Your task to perform on an android device: install app "Booking.com: Hotels and more" Image 0: 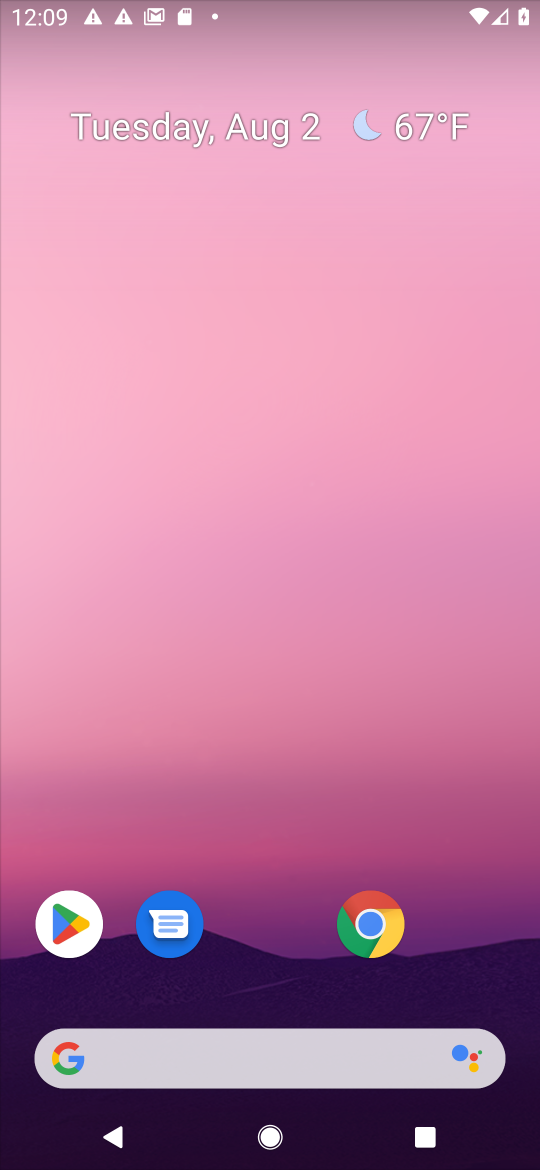
Step 0: press home button
Your task to perform on an android device: install app "Booking.com: Hotels and more" Image 1: 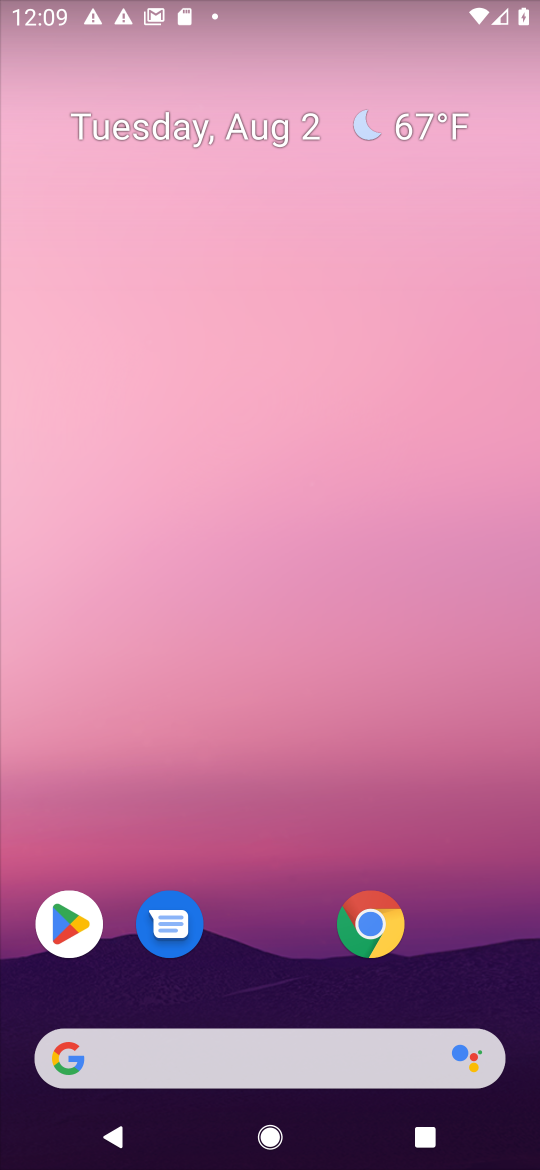
Step 1: press home button
Your task to perform on an android device: install app "Booking.com: Hotels and more" Image 2: 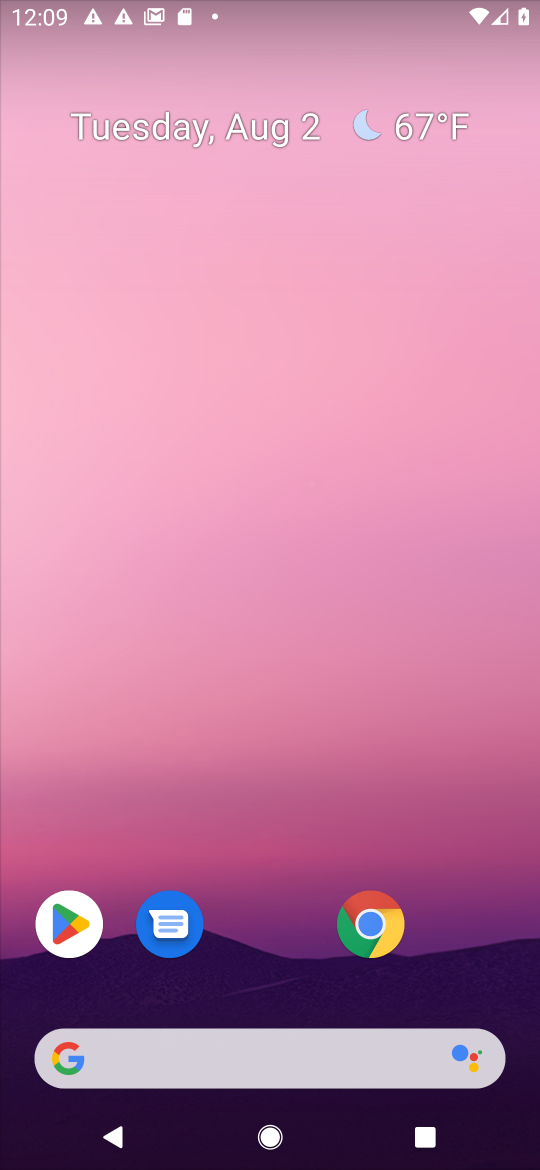
Step 2: click (74, 915)
Your task to perform on an android device: install app "Booking.com: Hotels and more" Image 3: 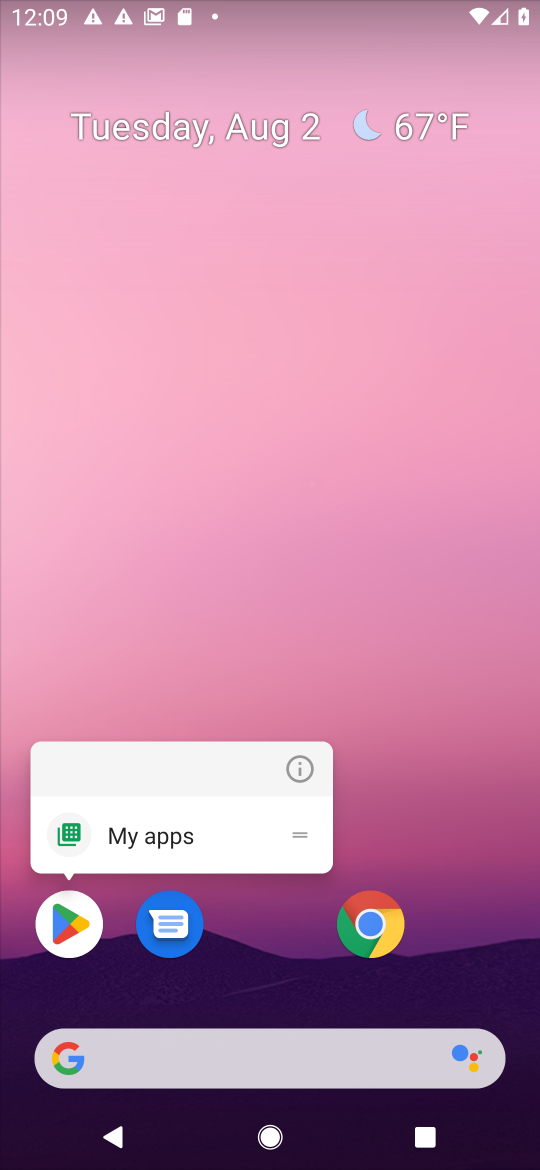
Step 3: click (63, 920)
Your task to perform on an android device: install app "Booking.com: Hotels and more" Image 4: 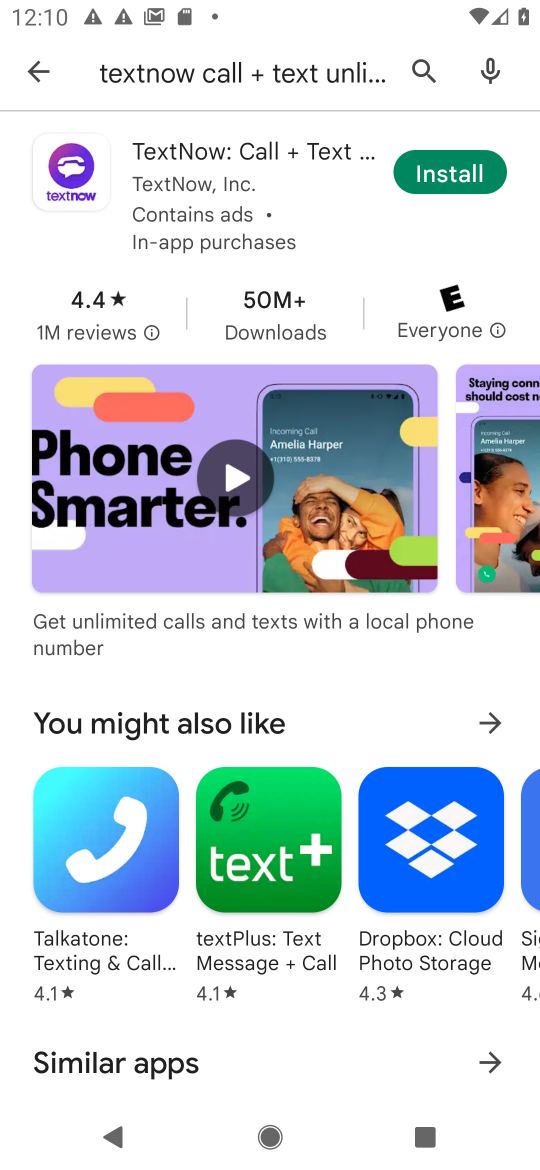
Step 4: click (421, 77)
Your task to perform on an android device: install app "Booking.com: Hotels and more" Image 5: 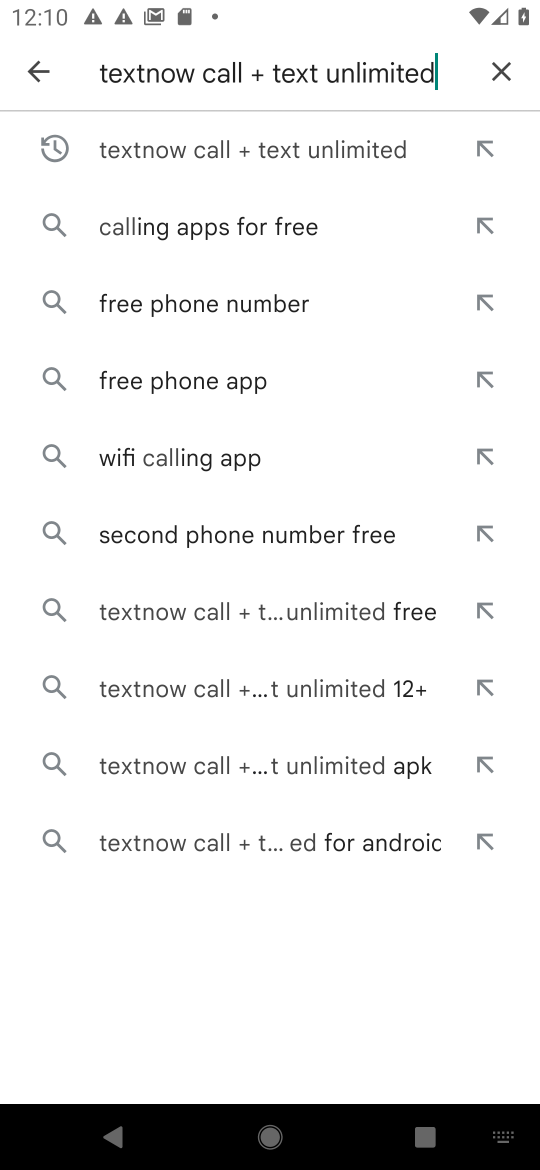
Step 5: click (492, 65)
Your task to perform on an android device: install app "Booking.com: Hotels and more" Image 6: 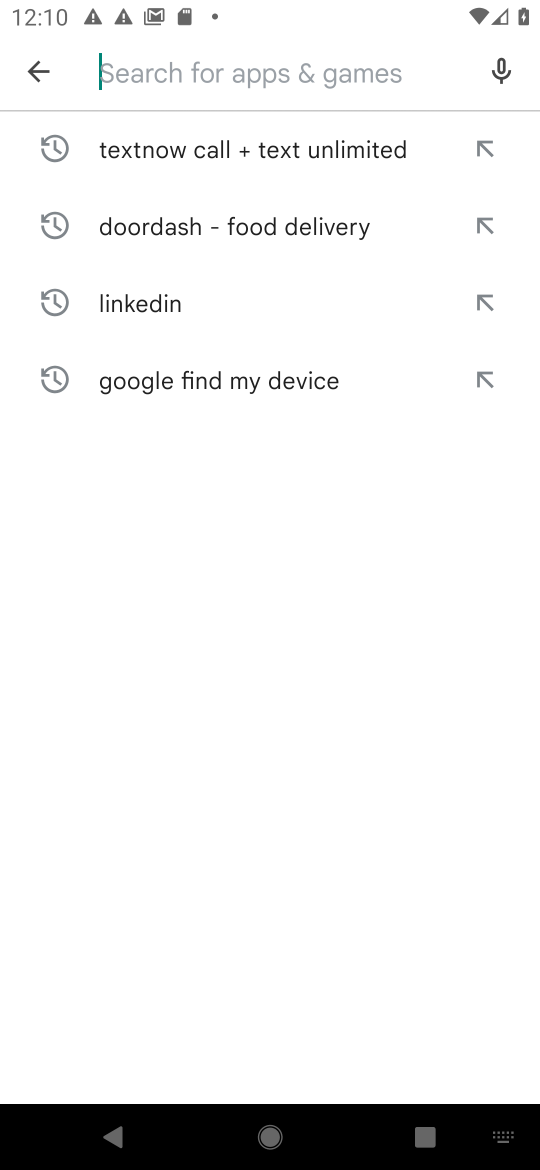
Step 6: type "Booking.com: Hotels and more"
Your task to perform on an android device: install app "Booking.com: Hotels and more" Image 7: 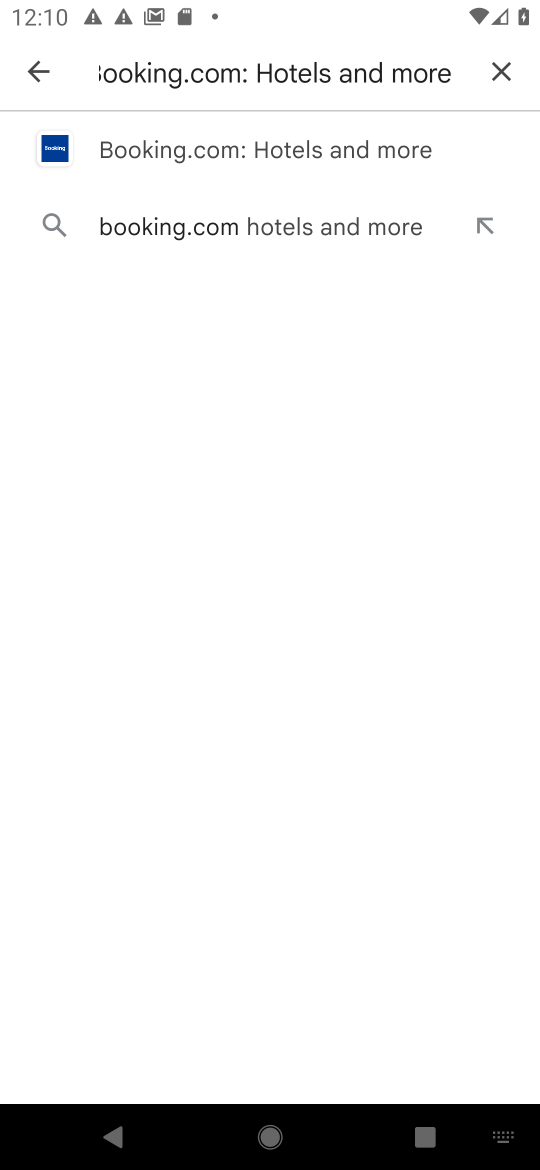
Step 7: click (296, 137)
Your task to perform on an android device: install app "Booking.com: Hotels and more" Image 8: 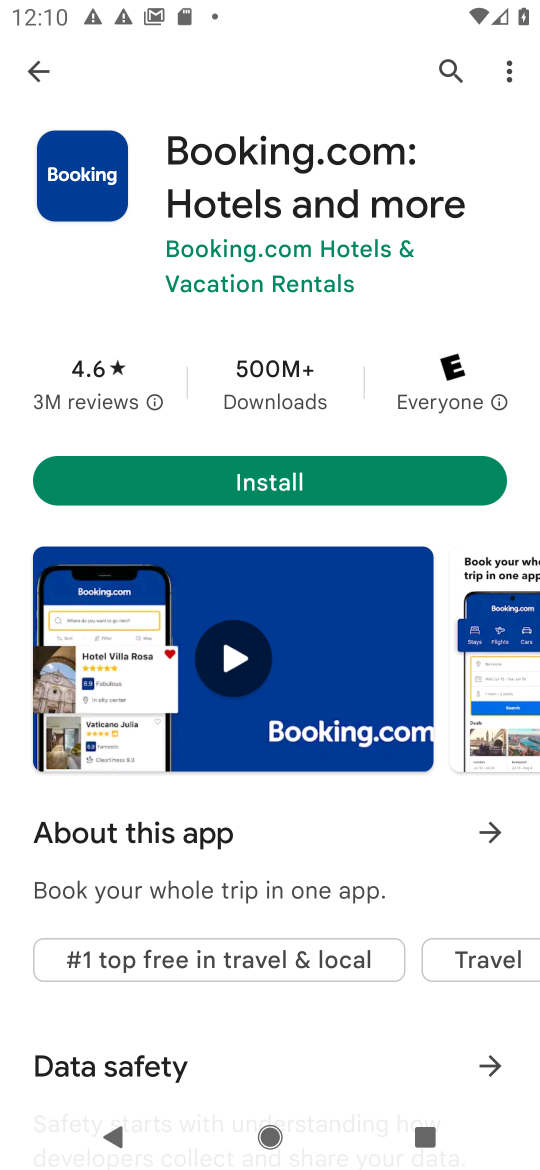
Step 8: click (312, 479)
Your task to perform on an android device: install app "Booking.com: Hotels and more" Image 9: 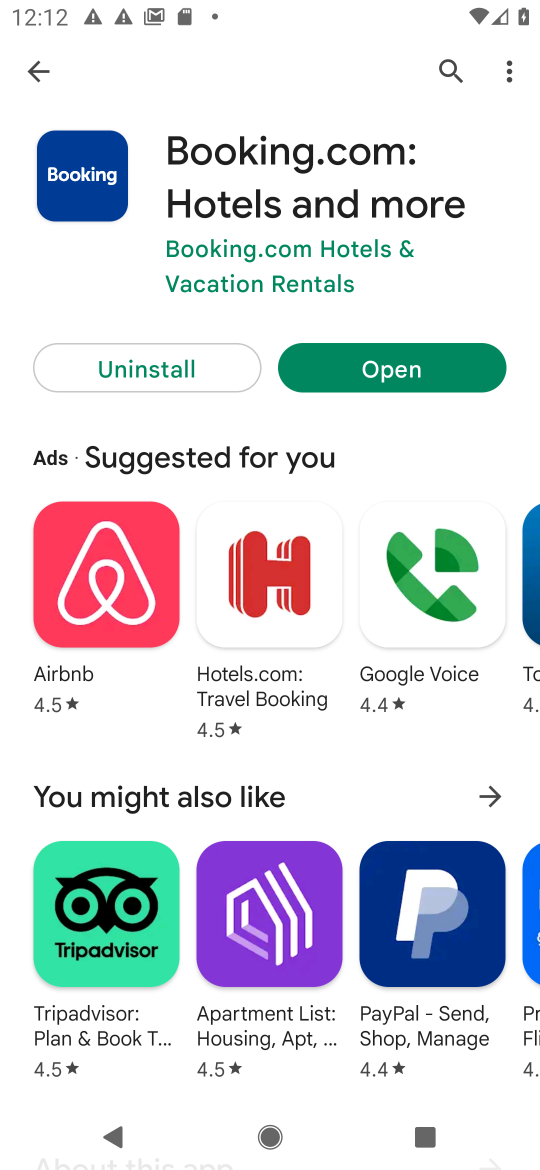
Step 9: click (410, 365)
Your task to perform on an android device: install app "Booking.com: Hotels and more" Image 10: 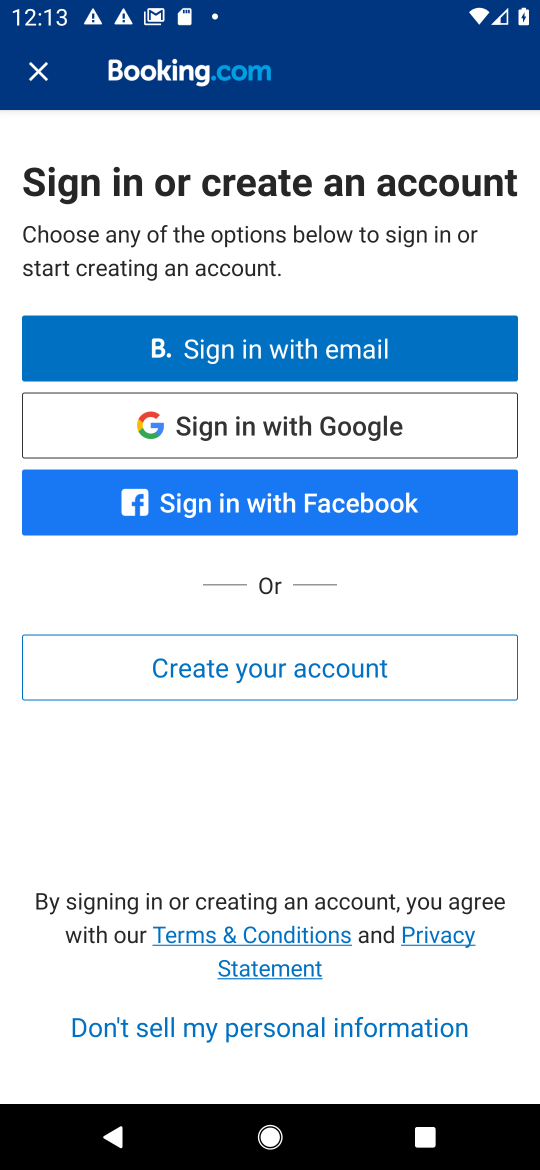
Step 10: click (300, 426)
Your task to perform on an android device: install app "Booking.com: Hotels and more" Image 11: 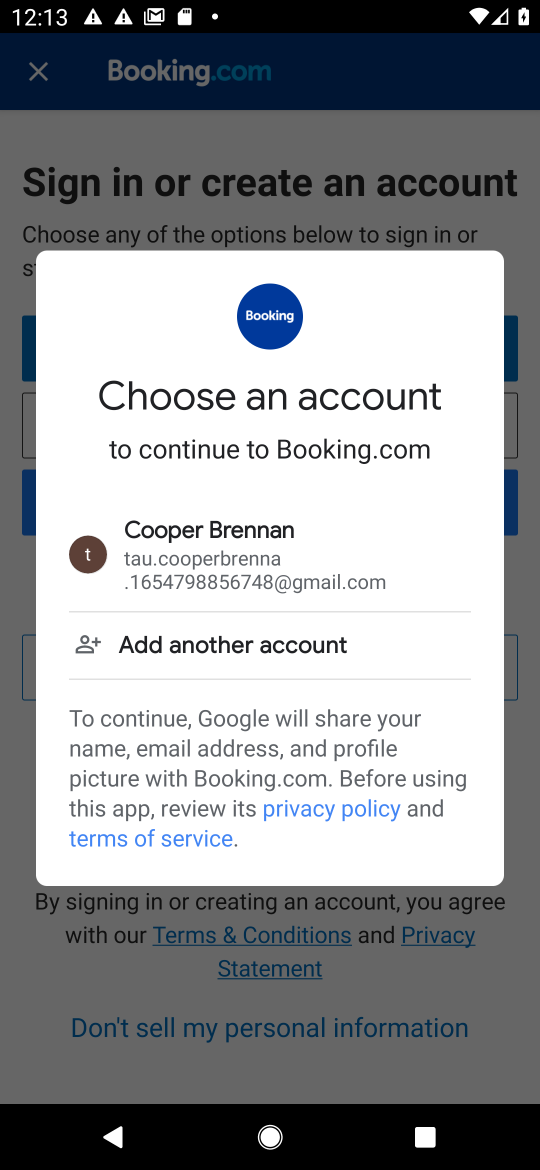
Step 11: click (168, 547)
Your task to perform on an android device: install app "Booking.com: Hotels and more" Image 12: 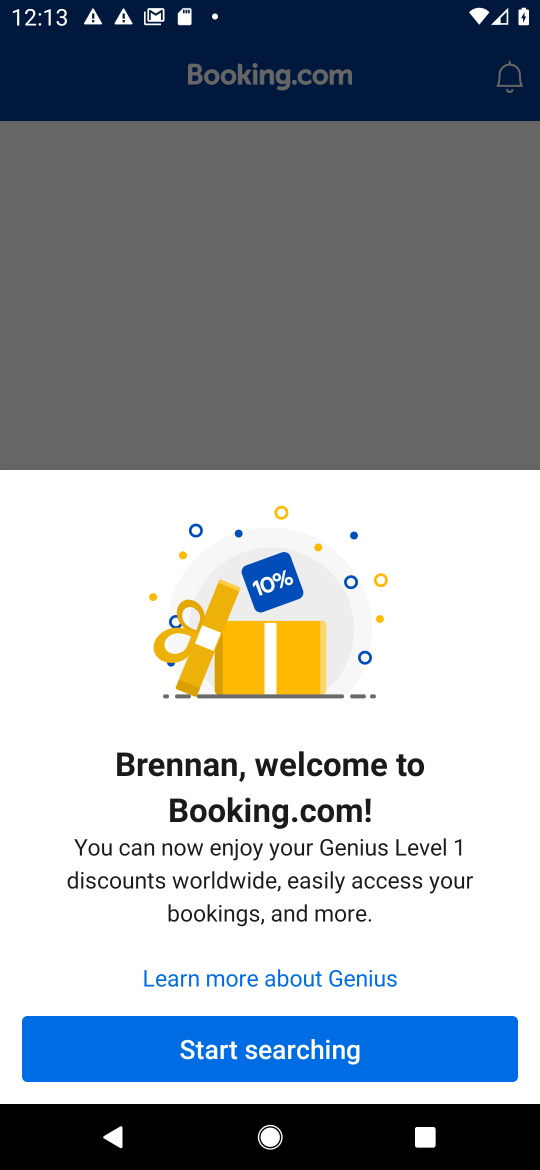
Step 12: click (275, 1049)
Your task to perform on an android device: install app "Booking.com: Hotels and more" Image 13: 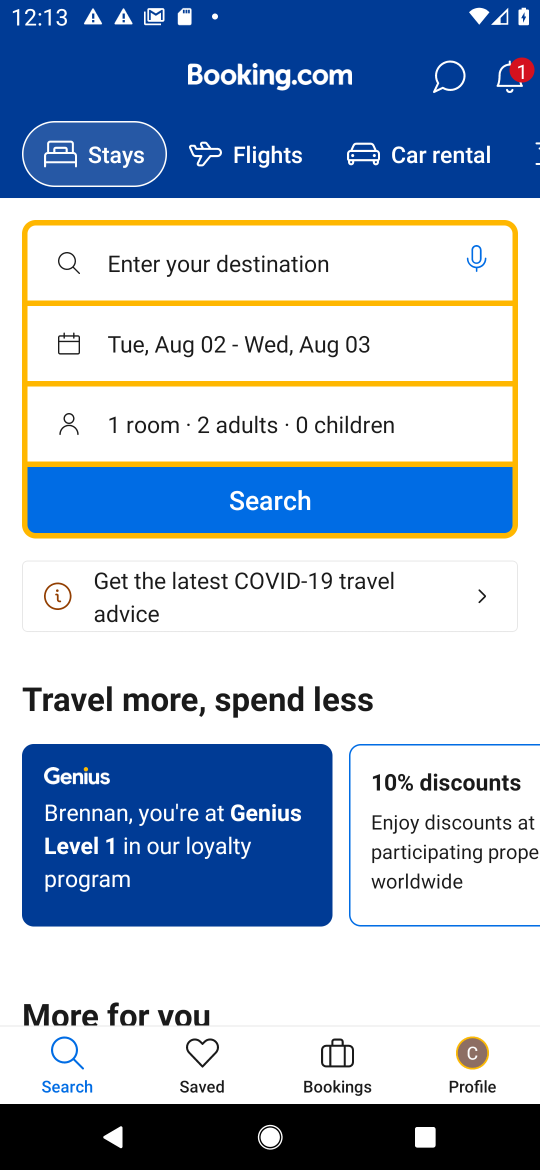
Step 13: task complete